Your task to perform on an android device: turn notification dots off Image 0: 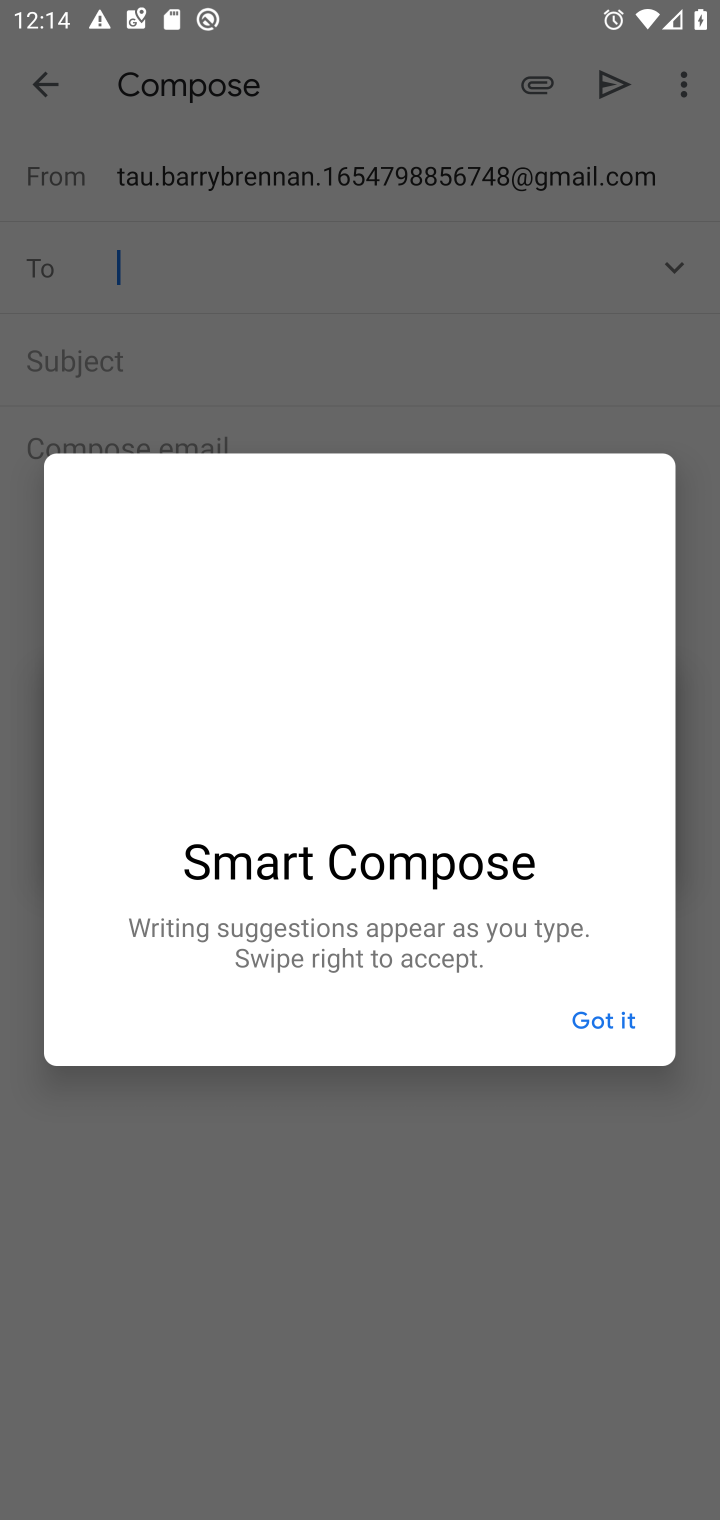
Step 0: press home button
Your task to perform on an android device: turn notification dots off Image 1: 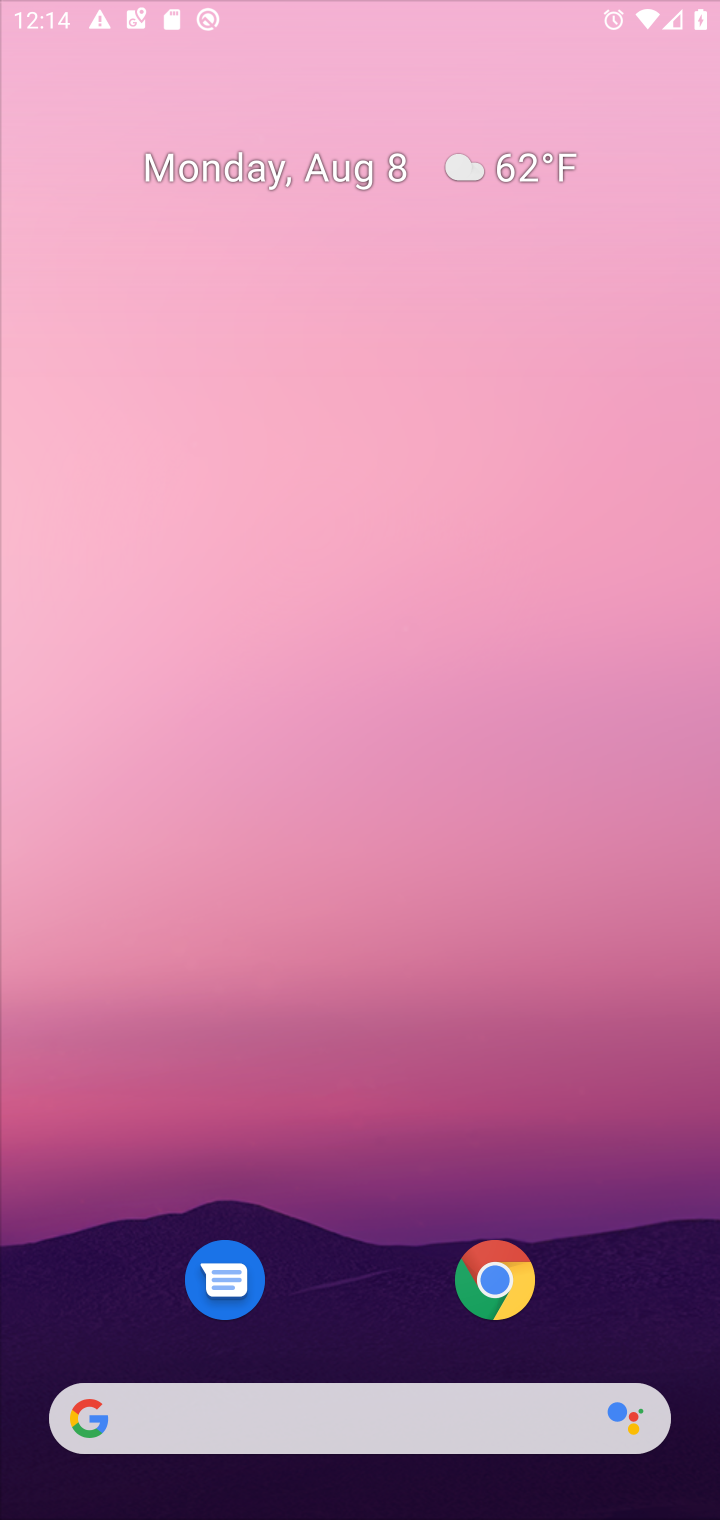
Step 1: press home button
Your task to perform on an android device: turn notification dots off Image 2: 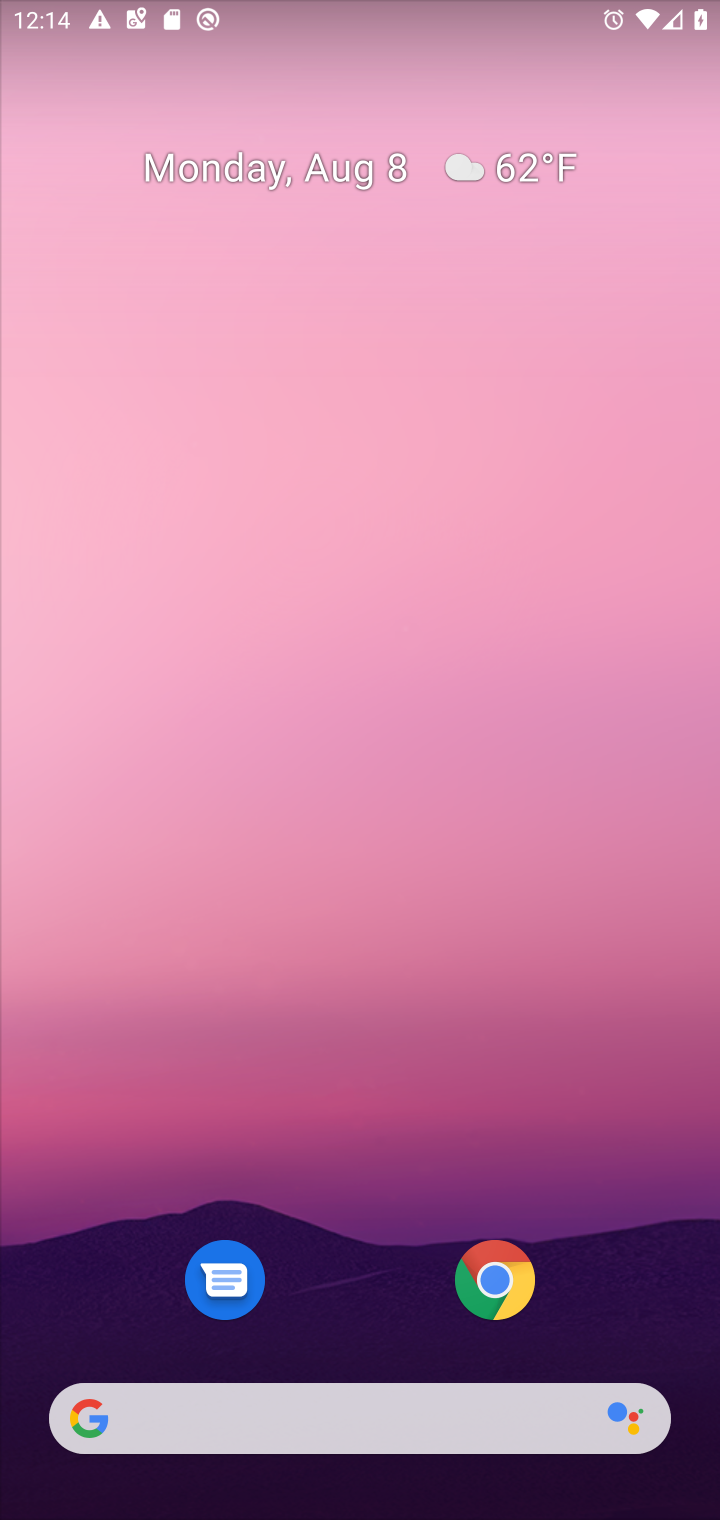
Step 2: drag from (351, 1346) to (315, 147)
Your task to perform on an android device: turn notification dots off Image 3: 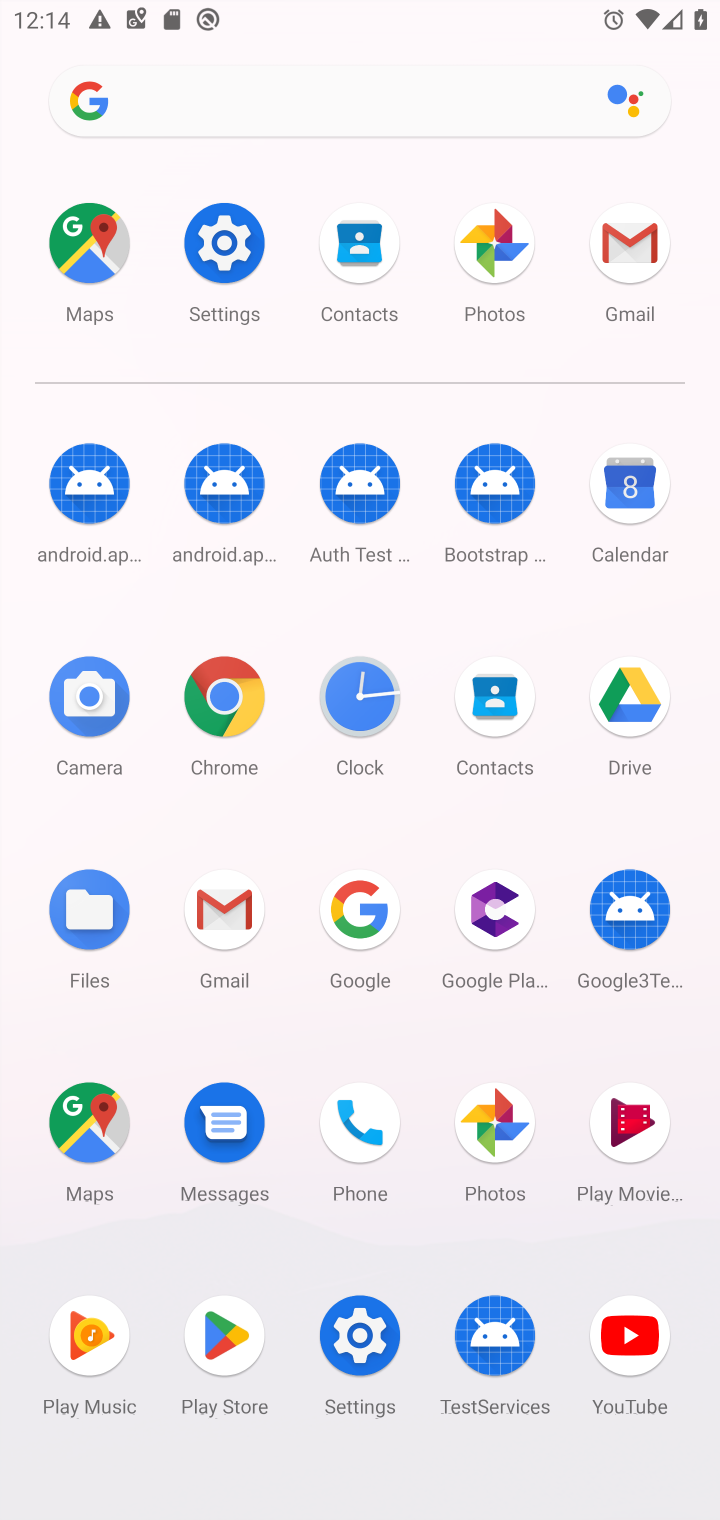
Step 3: click (227, 246)
Your task to perform on an android device: turn notification dots off Image 4: 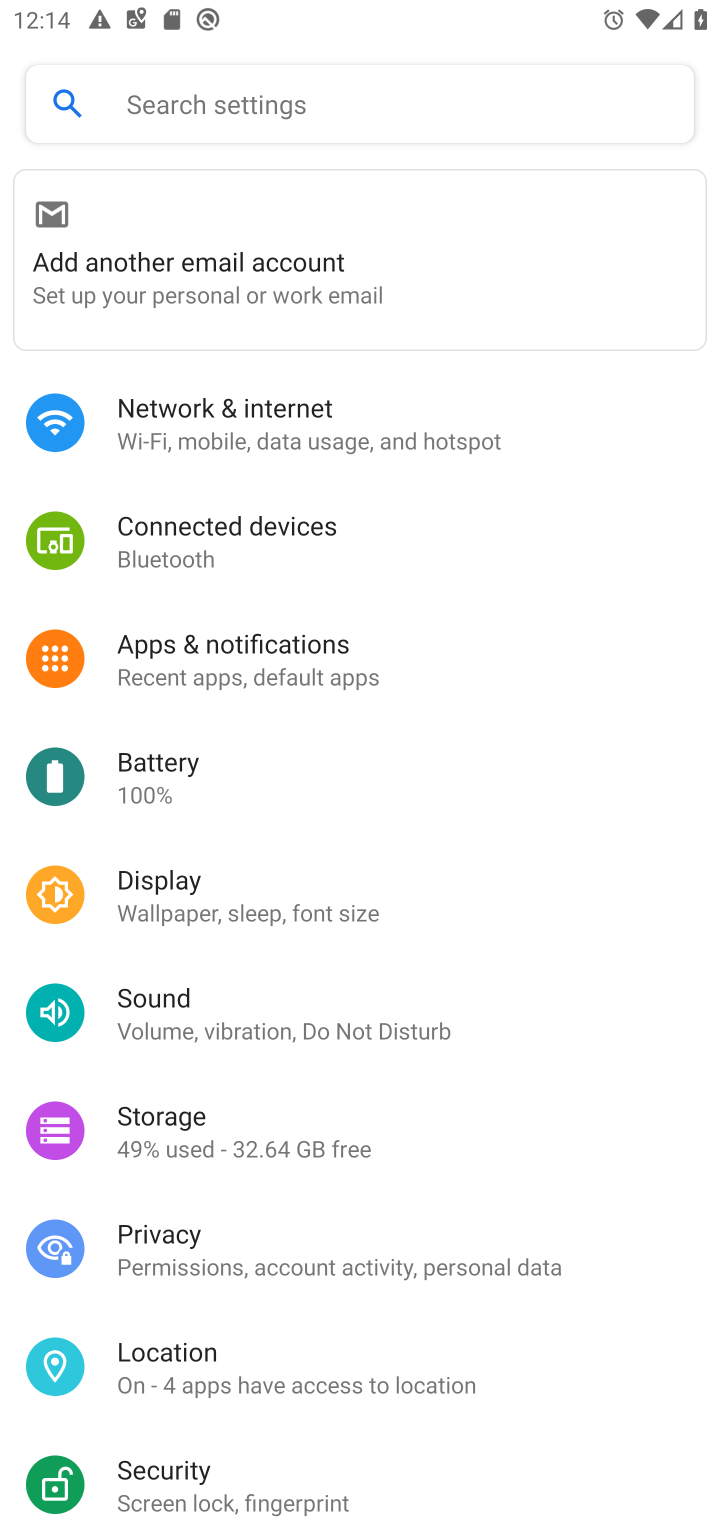
Step 4: click (152, 661)
Your task to perform on an android device: turn notification dots off Image 5: 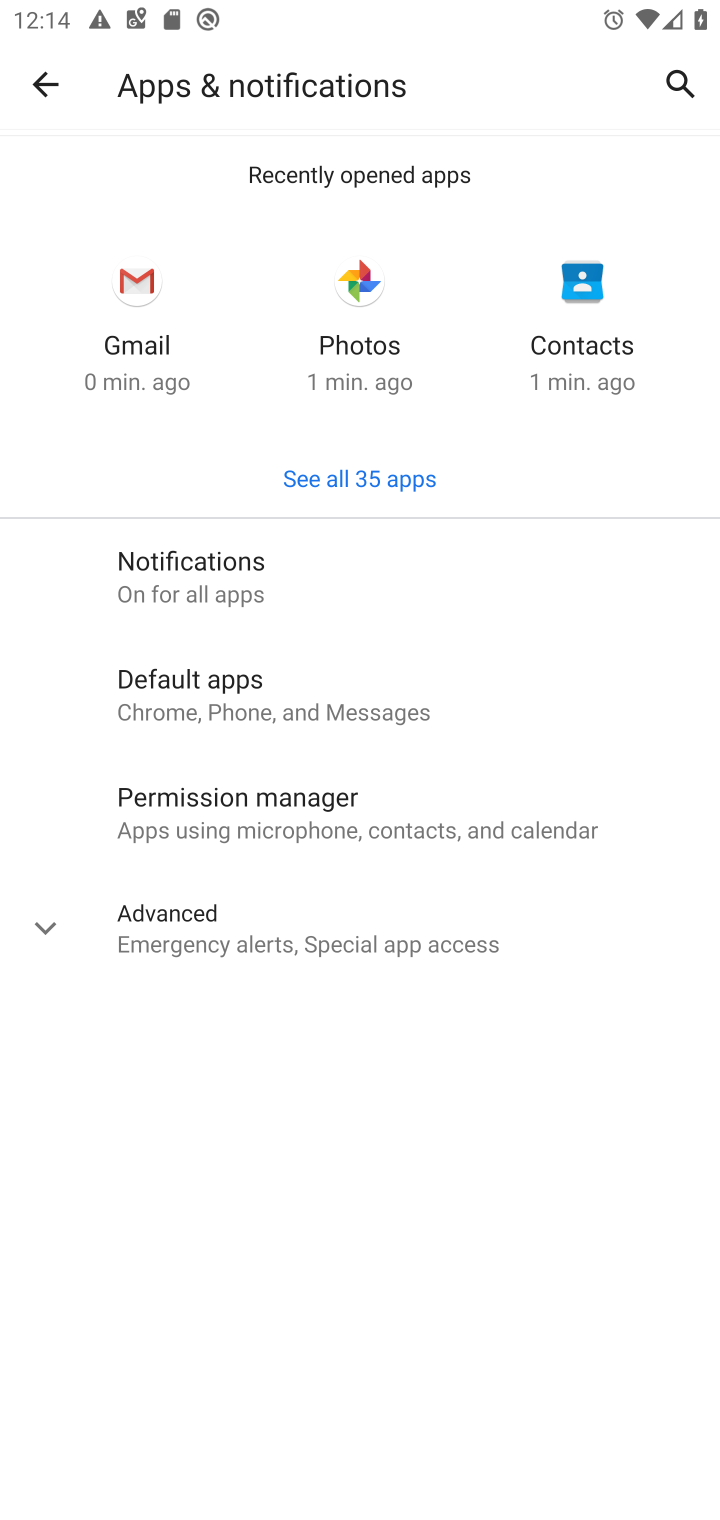
Step 5: click (174, 570)
Your task to perform on an android device: turn notification dots off Image 6: 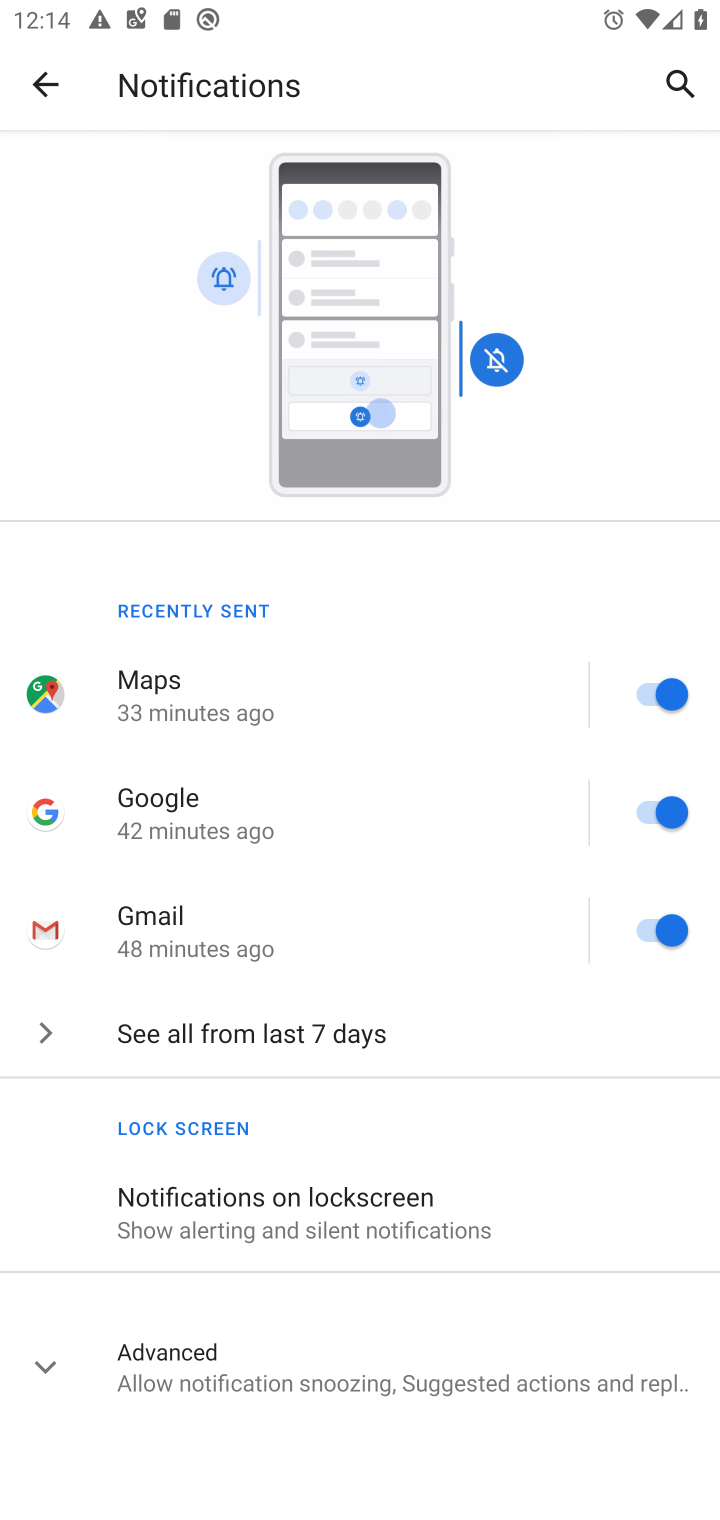
Step 6: click (436, 1383)
Your task to perform on an android device: turn notification dots off Image 7: 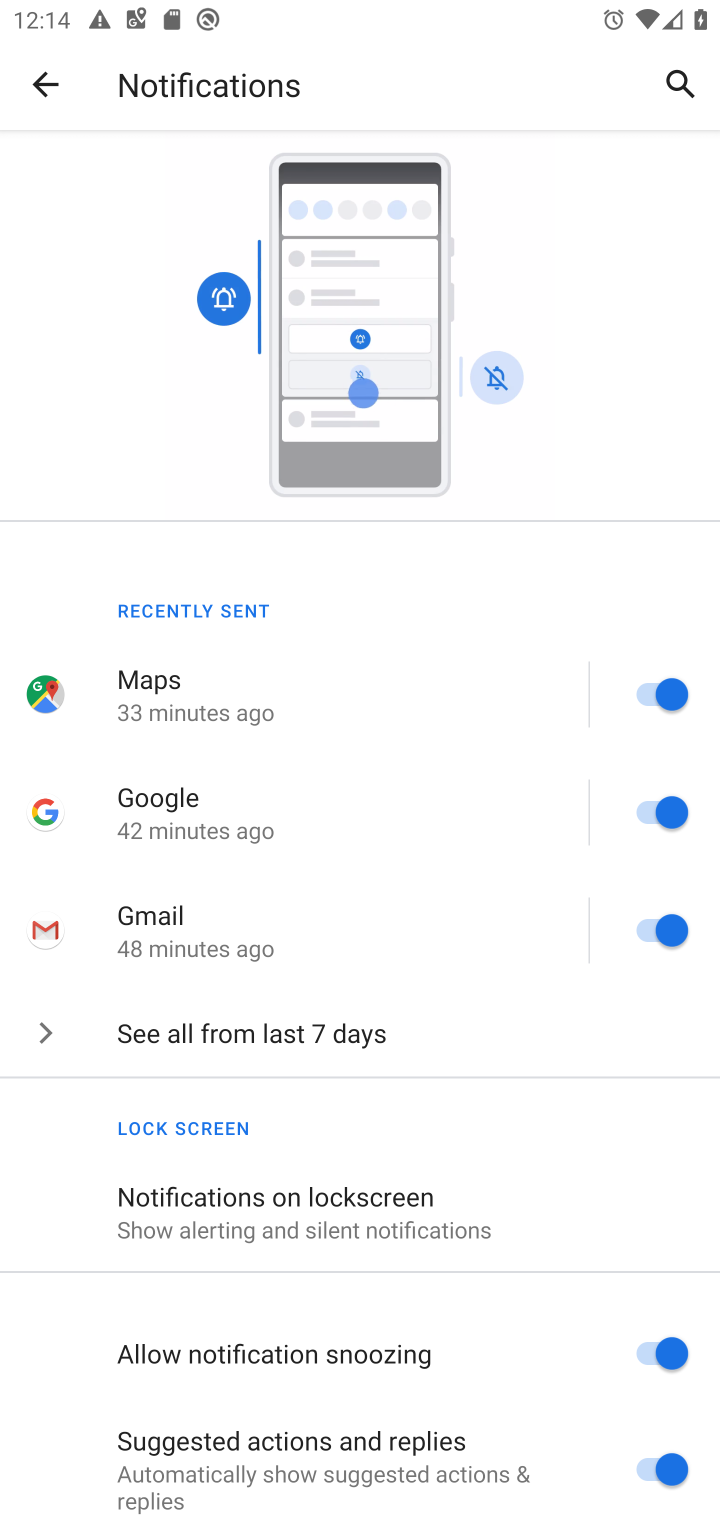
Step 7: task complete